Your task to perform on an android device: check battery use Image 0: 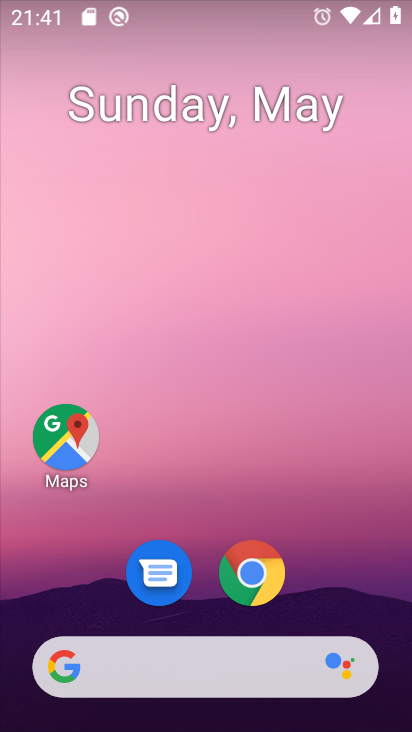
Step 0: drag from (179, 459) to (249, 1)
Your task to perform on an android device: check battery use Image 1: 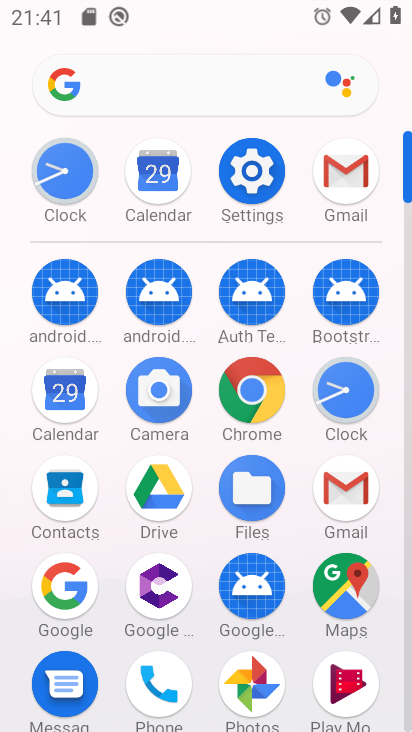
Step 1: click (263, 168)
Your task to perform on an android device: check battery use Image 2: 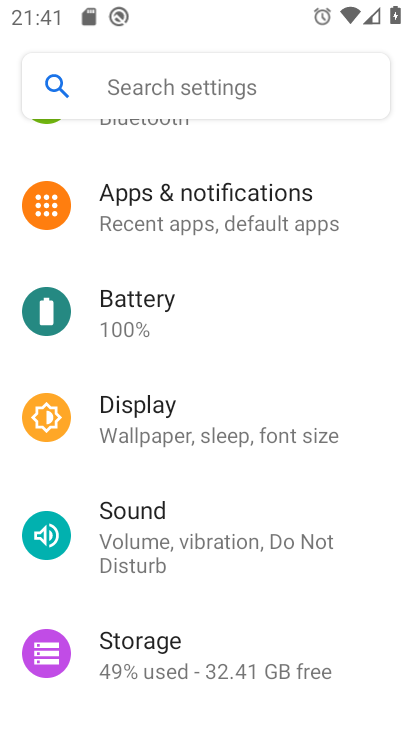
Step 2: drag from (270, 285) to (226, 558)
Your task to perform on an android device: check battery use Image 3: 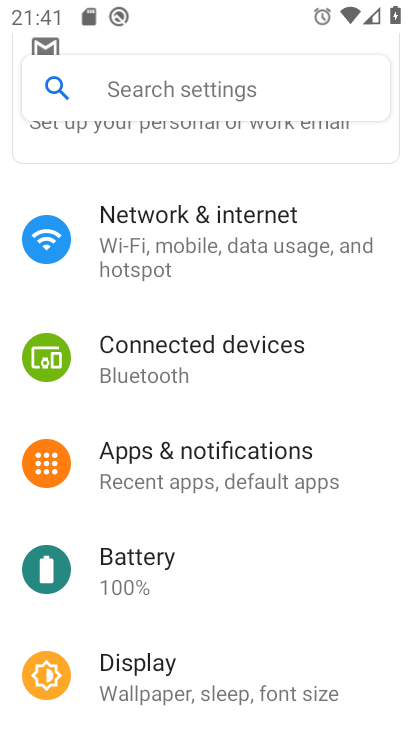
Step 3: click (218, 567)
Your task to perform on an android device: check battery use Image 4: 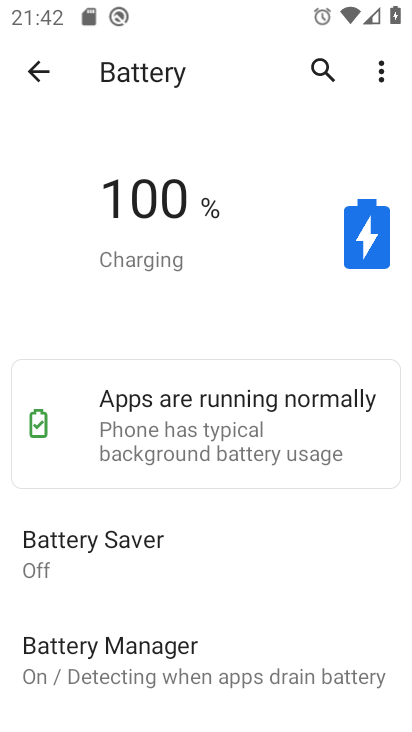
Step 4: task complete